Your task to perform on an android device: toggle priority inbox in the gmail app Image 0: 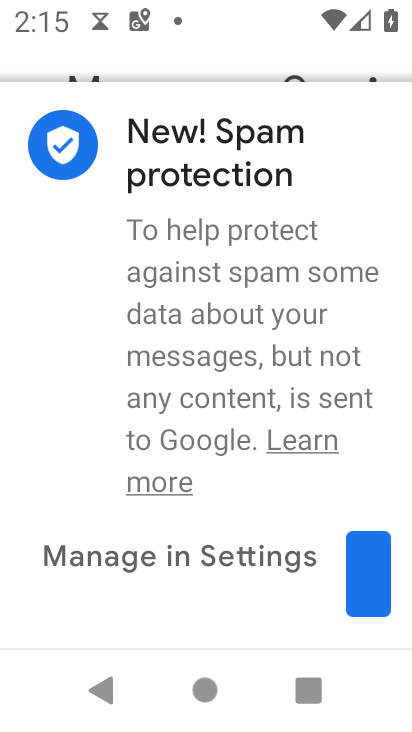
Step 0: press home button
Your task to perform on an android device: toggle priority inbox in the gmail app Image 1: 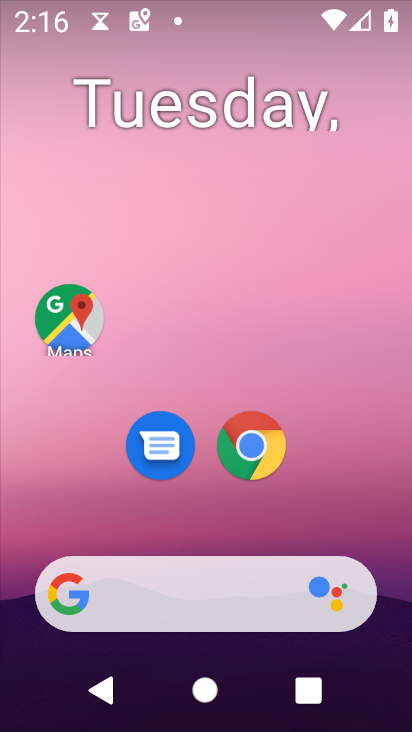
Step 1: drag from (333, 628) to (315, 138)
Your task to perform on an android device: toggle priority inbox in the gmail app Image 2: 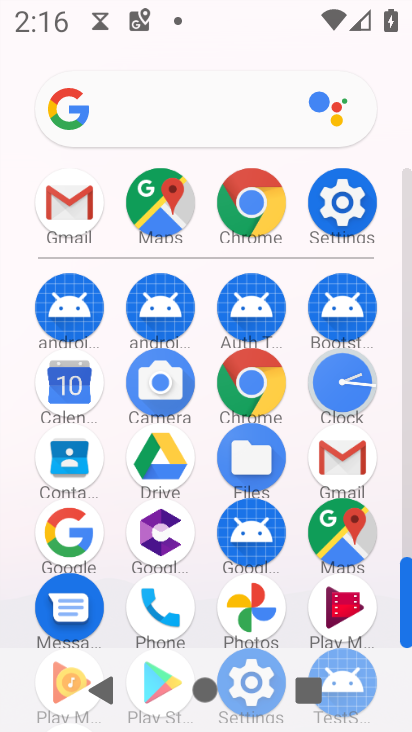
Step 2: click (352, 452)
Your task to perform on an android device: toggle priority inbox in the gmail app Image 3: 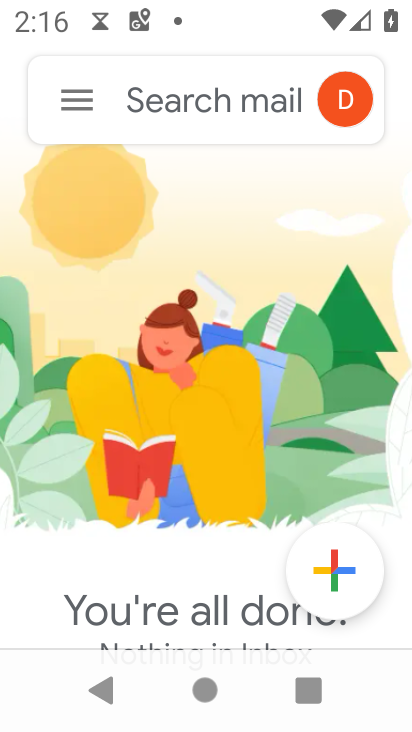
Step 3: click (91, 104)
Your task to perform on an android device: toggle priority inbox in the gmail app Image 4: 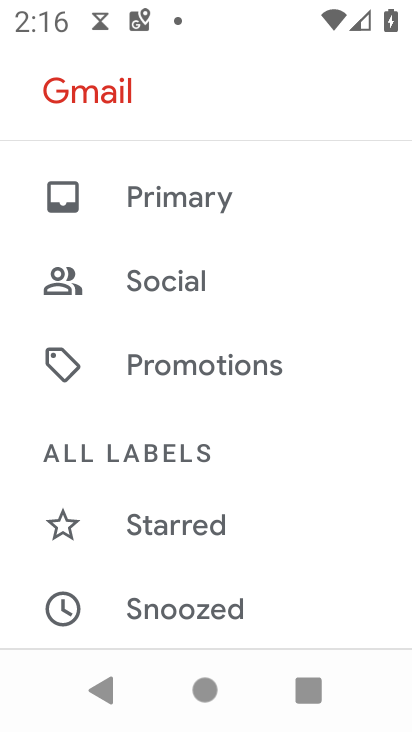
Step 4: drag from (240, 536) to (226, 76)
Your task to perform on an android device: toggle priority inbox in the gmail app Image 5: 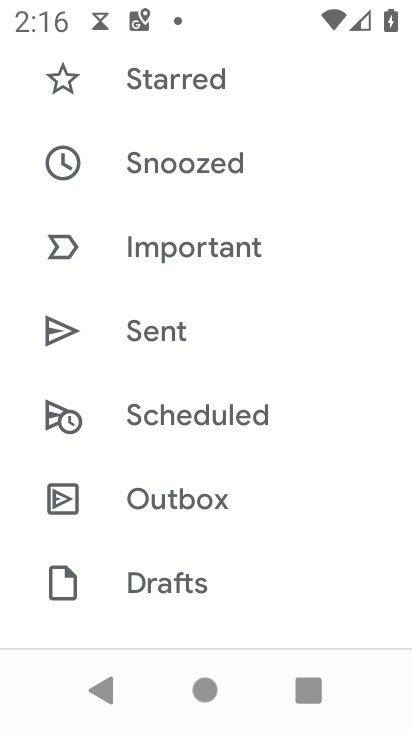
Step 5: drag from (241, 567) to (238, 119)
Your task to perform on an android device: toggle priority inbox in the gmail app Image 6: 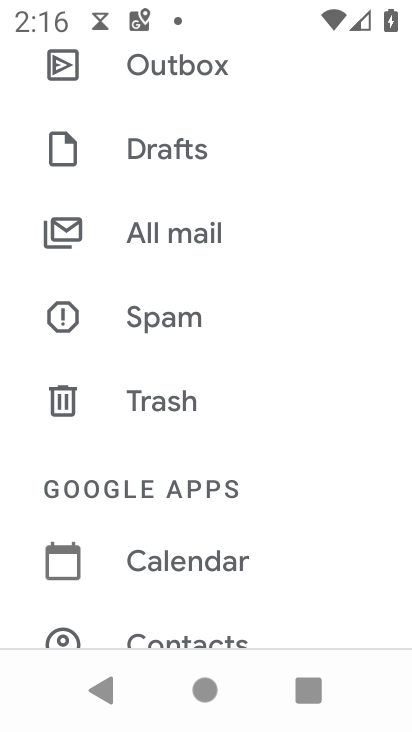
Step 6: drag from (183, 473) to (184, 112)
Your task to perform on an android device: toggle priority inbox in the gmail app Image 7: 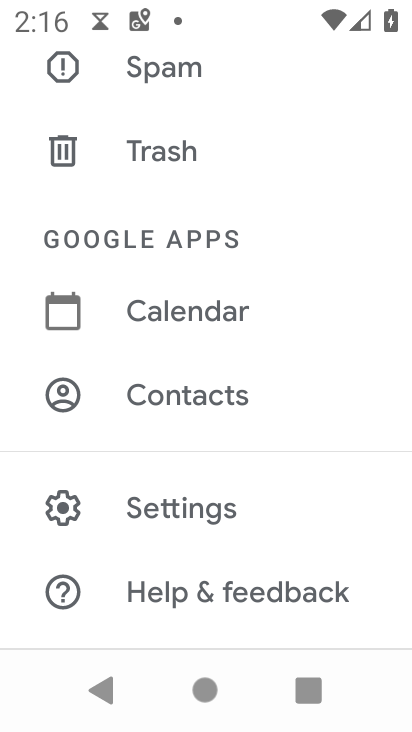
Step 7: click (196, 504)
Your task to perform on an android device: toggle priority inbox in the gmail app Image 8: 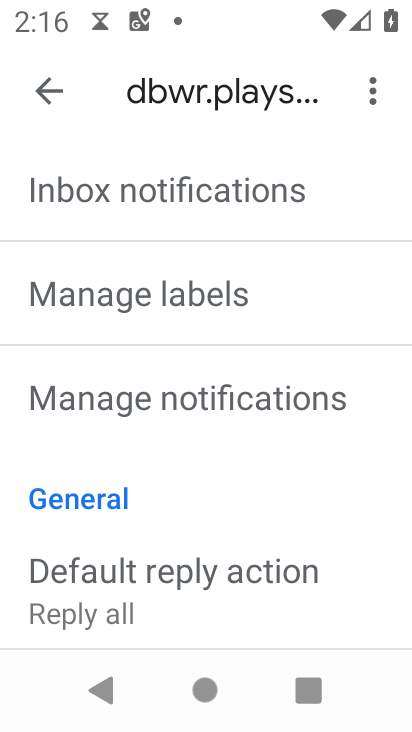
Step 8: drag from (180, 540) to (305, 711)
Your task to perform on an android device: toggle priority inbox in the gmail app Image 9: 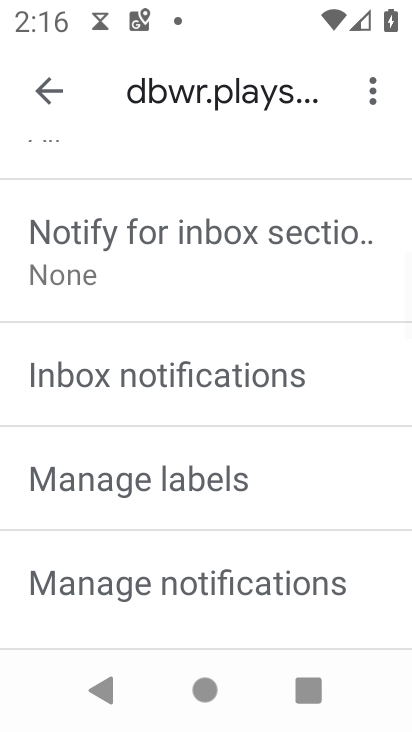
Step 9: drag from (225, 269) to (277, 709)
Your task to perform on an android device: toggle priority inbox in the gmail app Image 10: 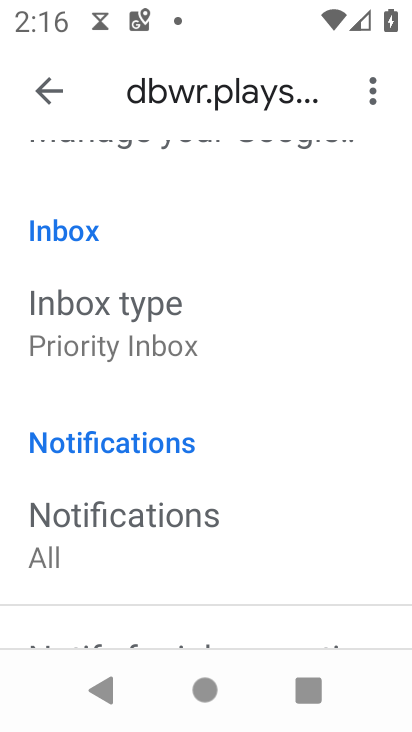
Step 10: drag from (226, 379) to (226, 497)
Your task to perform on an android device: toggle priority inbox in the gmail app Image 11: 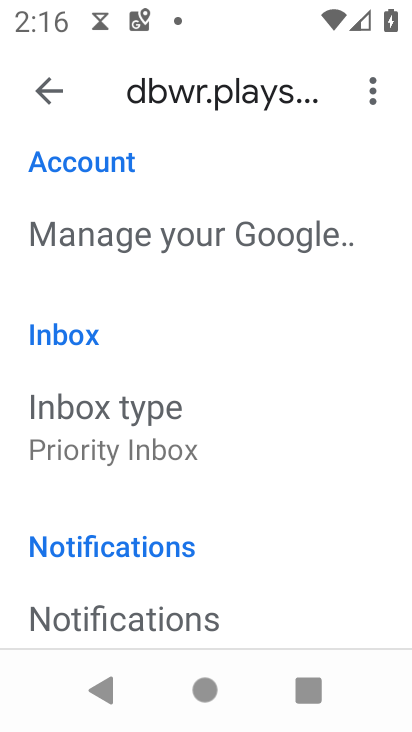
Step 11: click (207, 443)
Your task to perform on an android device: toggle priority inbox in the gmail app Image 12: 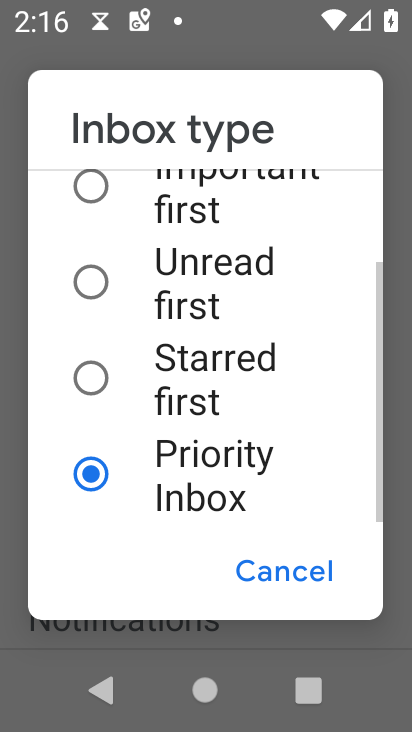
Step 12: click (100, 279)
Your task to perform on an android device: toggle priority inbox in the gmail app Image 13: 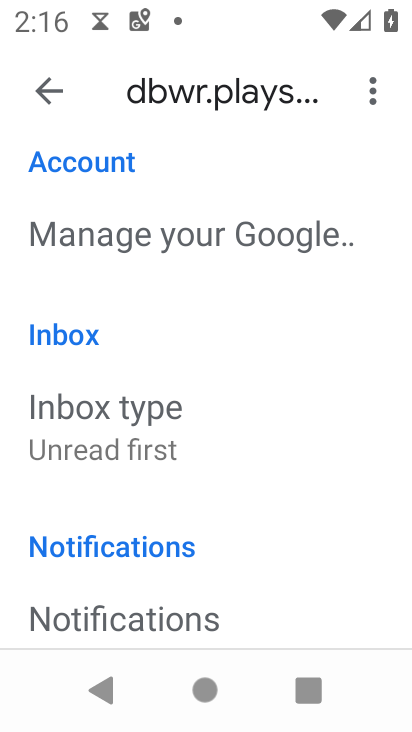
Step 13: task complete